Your task to perform on an android device: Open Google Chrome and open the bookmarks view Image 0: 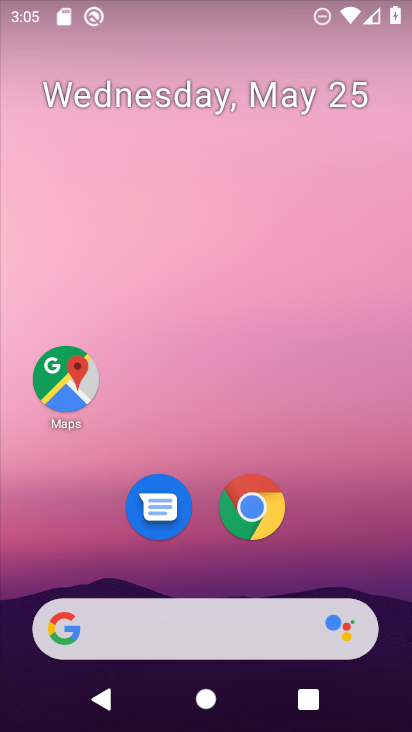
Step 0: drag from (257, 679) to (232, 137)
Your task to perform on an android device: Open Google Chrome and open the bookmarks view Image 1: 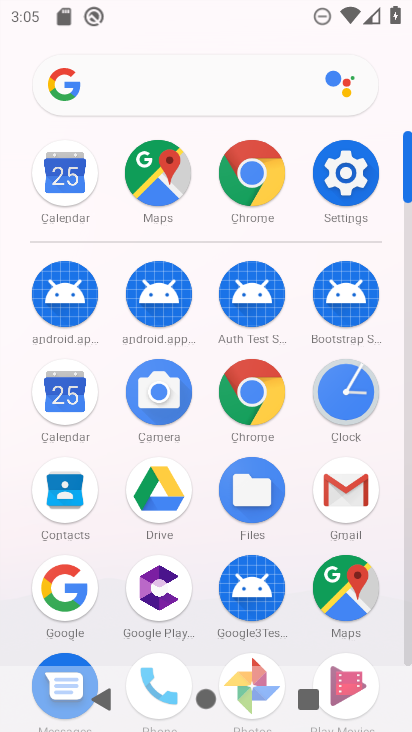
Step 1: click (261, 401)
Your task to perform on an android device: Open Google Chrome and open the bookmarks view Image 2: 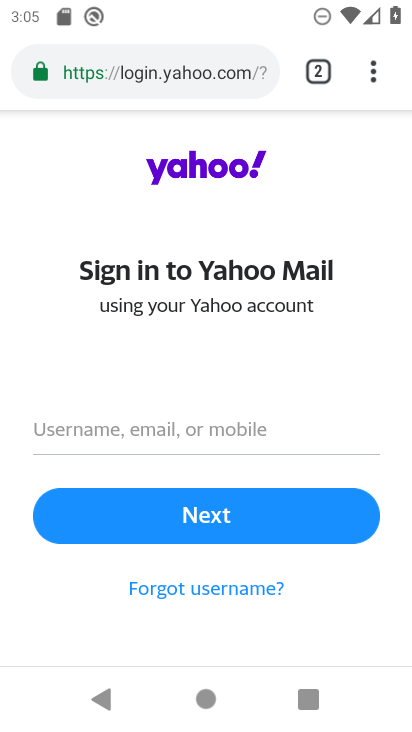
Step 2: click (376, 70)
Your task to perform on an android device: Open Google Chrome and open the bookmarks view Image 3: 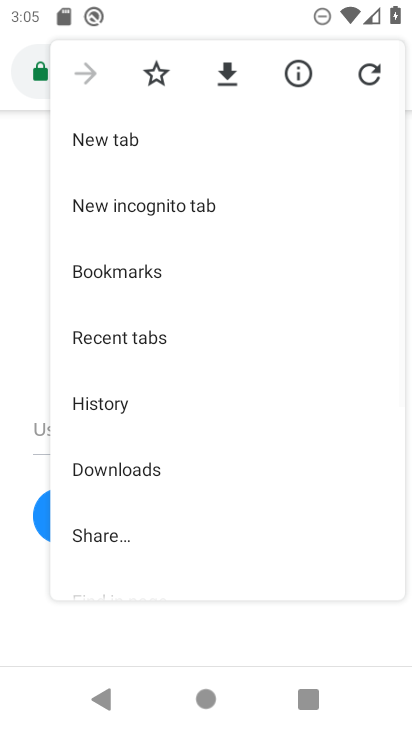
Step 3: click (134, 261)
Your task to perform on an android device: Open Google Chrome and open the bookmarks view Image 4: 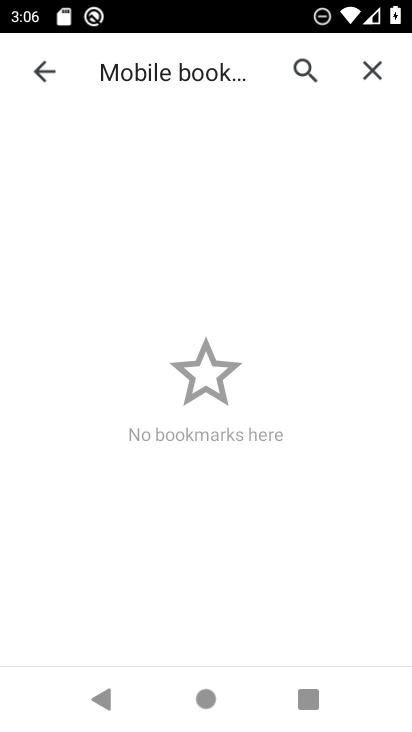
Step 4: task complete